Your task to perform on an android device: What's the weather? Image 0: 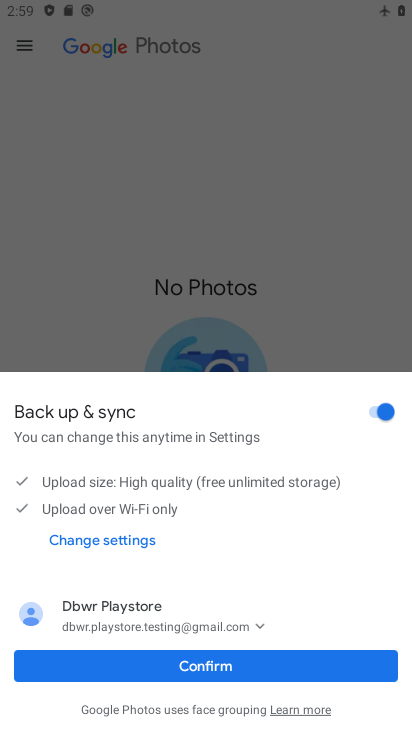
Step 0: press home button
Your task to perform on an android device: What's the weather? Image 1: 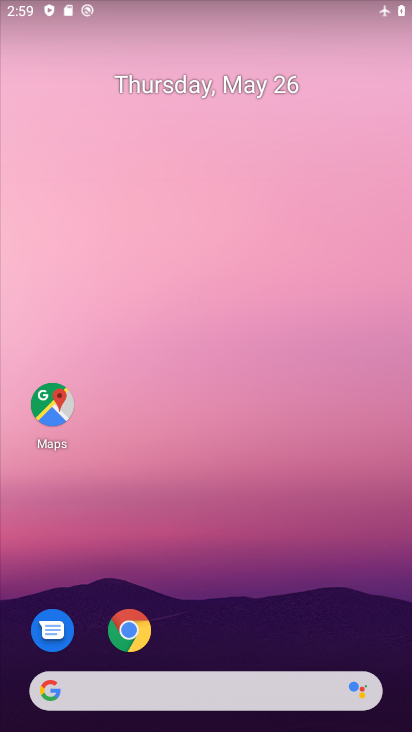
Step 1: drag from (209, 626) to (165, 189)
Your task to perform on an android device: What's the weather? Image 2: 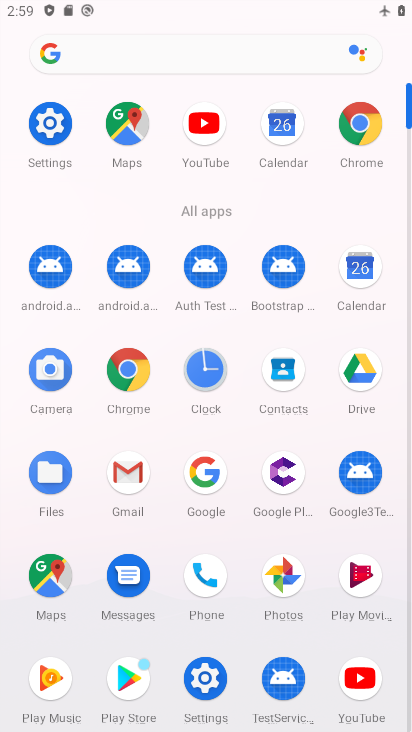
Step 2: click (200, 469)
Your task to perform on an android device: What's the weather? Image 3: 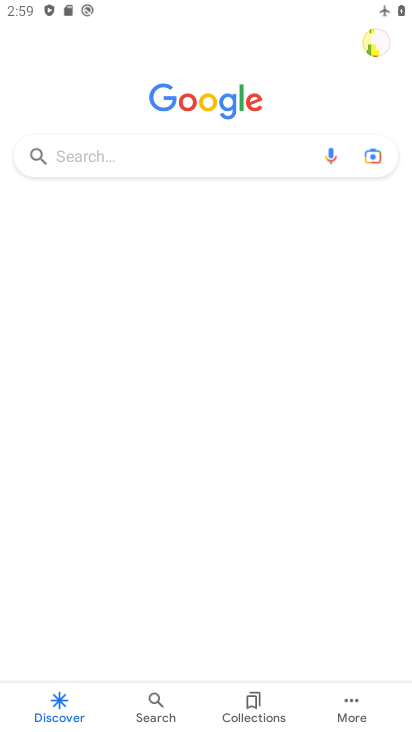
Step 3: click (163, 155)
Your task to perform on an android device: What's the weather? Image 4: 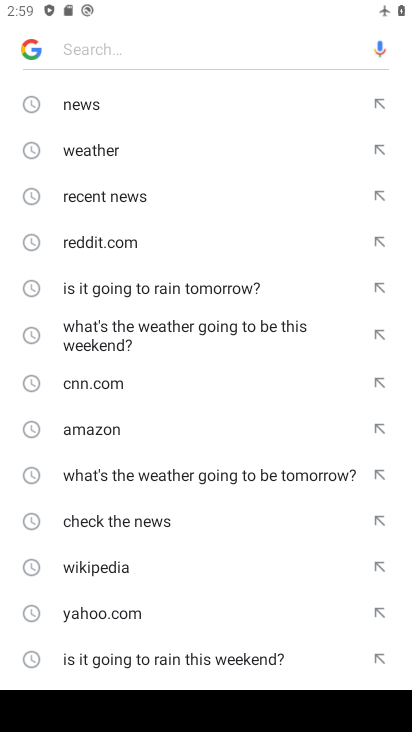
Step 4: click (97, 146)
Your task to perform on an android device: What's the weather? Image 5: 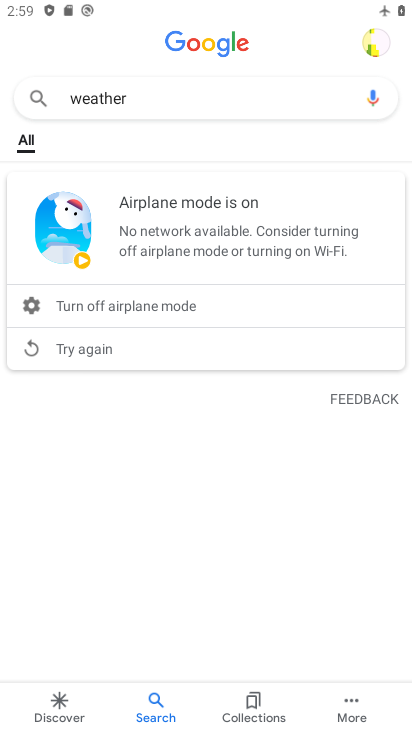
Step 5: task complete